Your task to perform on an android device: What's the weather today? Image 0: 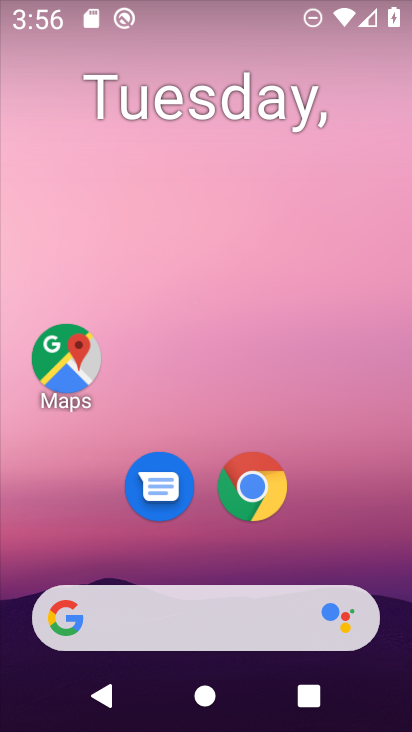
Step 0: click (185, 613)
Your task to perform on an android device: What's the weather today? Image 1: 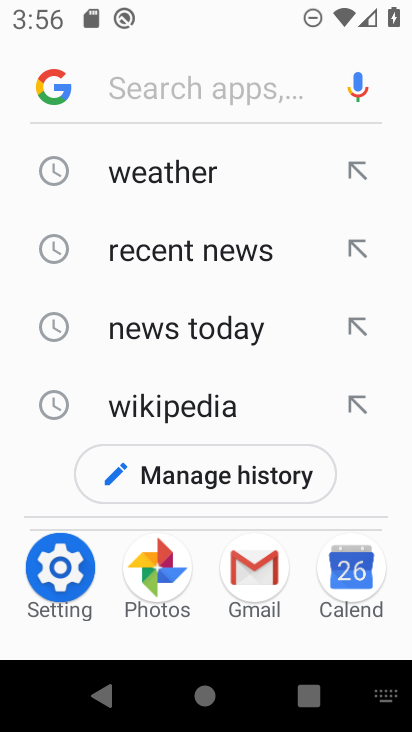
Step 1: click (154, 172)
Your task to perform on an android device: What's the weather today? Image 2: 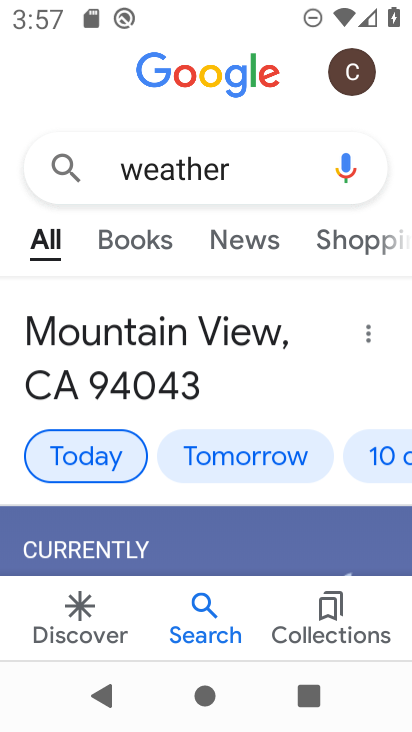
Step 2: task complete